Your task to perform on an android device: Show me popular videos on Youtube Image 0: 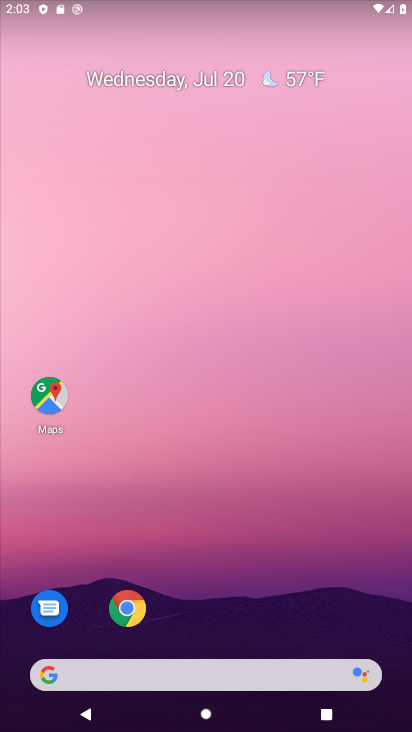
Step 0: click (103, 14)
Your task to perform on an android device: Show me popular videos on Youtube Image 1: 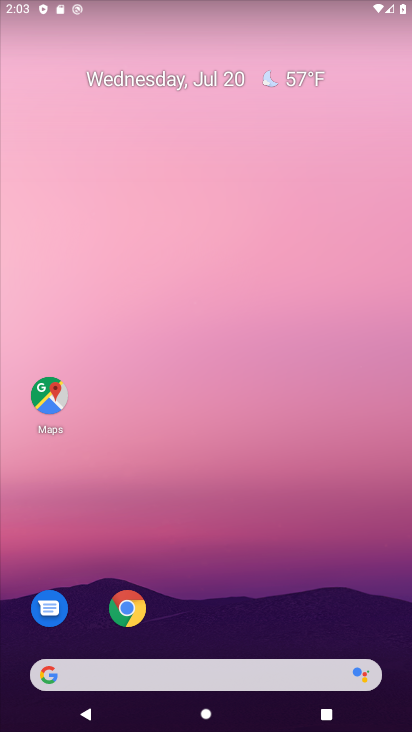
Step 1: drag from (234, 603) to (141, 18)
Your task to perform on an android device: Show me popular videos on Youtube Image 2: 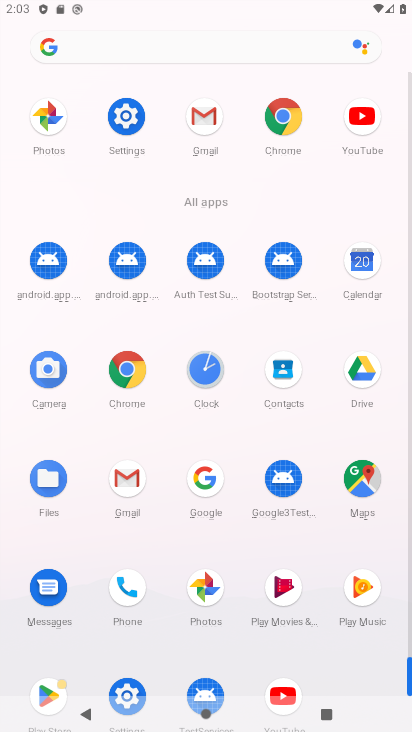
Step 2: click (359, 111)
Your task to perform on an android device: Show me popular videos on Youtube Image 3: 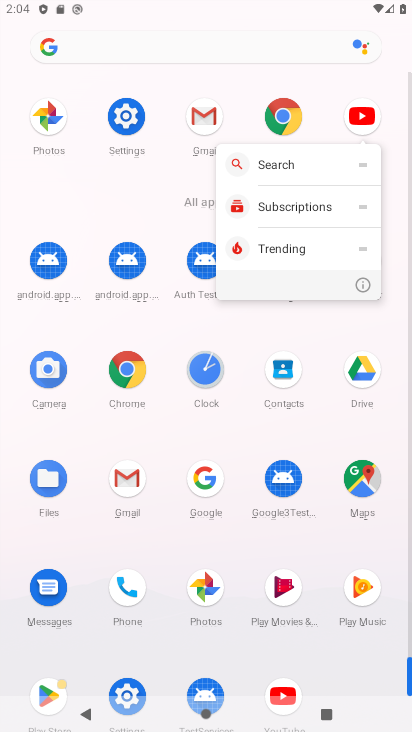
Step 3: click (347, 107)
Your task to perform on an android device: Show me popular videos on Youtube Image 4: 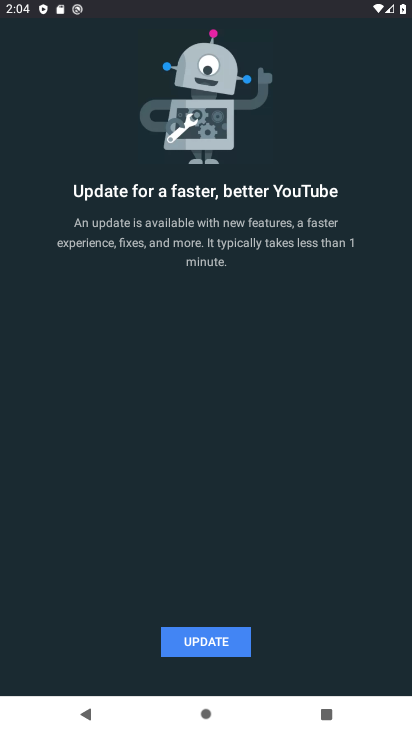
Step 4: click (206, 635)
Your task to perform on an android device: Show me popular videos on Youtube Image 5: 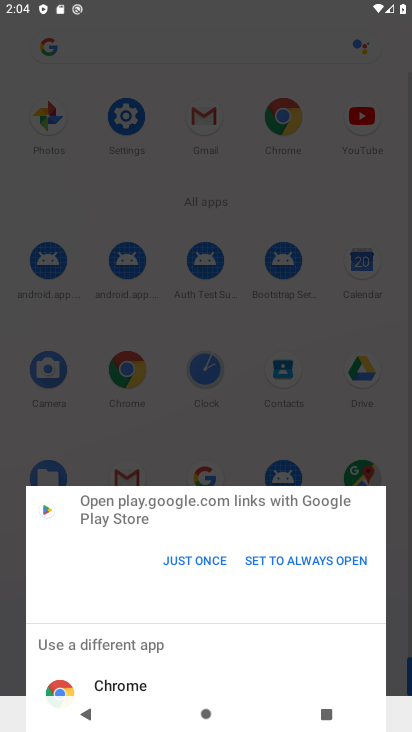
Step 5: click (162, 562)
Your task to perform on an android device: Show me popular videos on Youtube Image 6: 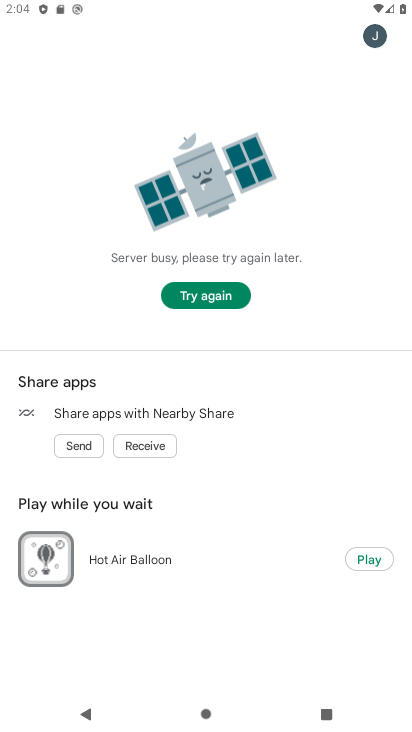
Step 6: task complete